Your task to perform on an android device: change notification settings in the gmail app Image 0: 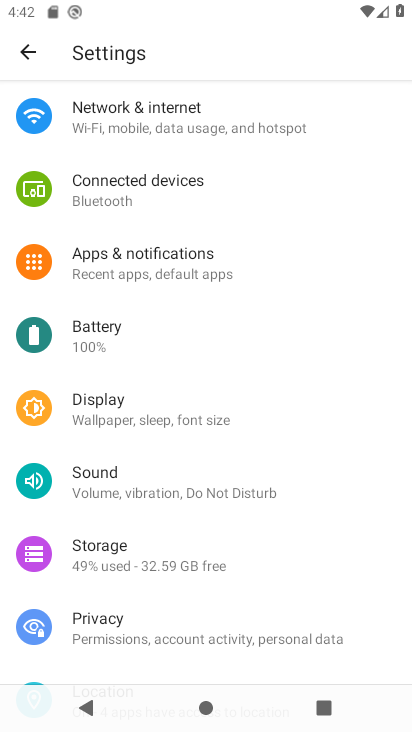
Step 0: press back button
Your task to perform on an android device: change notification settings in the gmail app Image 1: 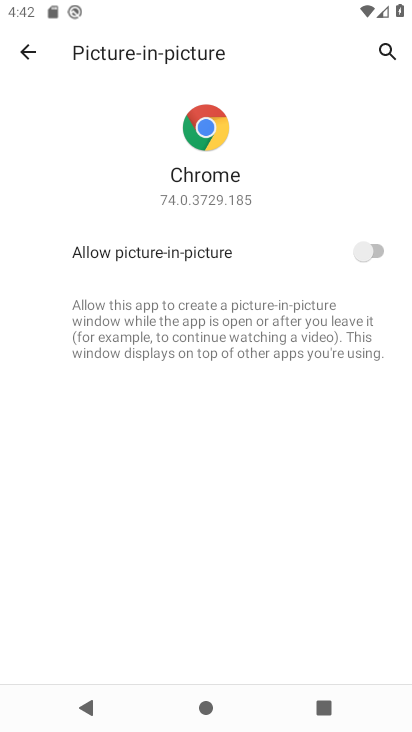
Step 1: press back button
Your task to perform on an android device: change notification settings in the gmail app Image 2: 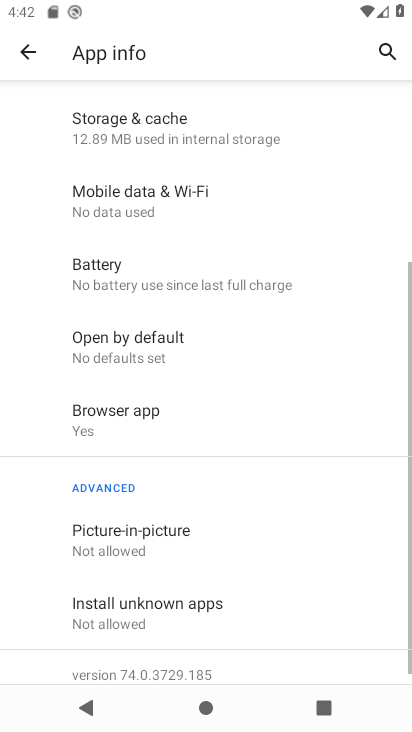
Step 2: press back button
Your task to perform on an android device: change notification settings in the gmail app Image 3: 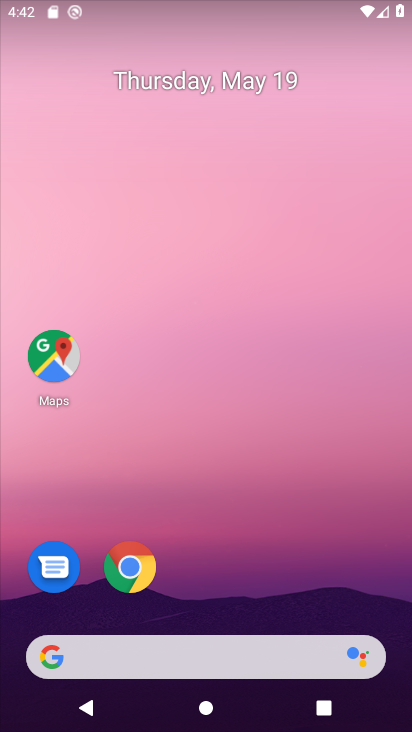
Step 3: drag from (227, 534) to (267, 101)
Your task to perform on an android device: change notification settings in the gmail app Image 4: 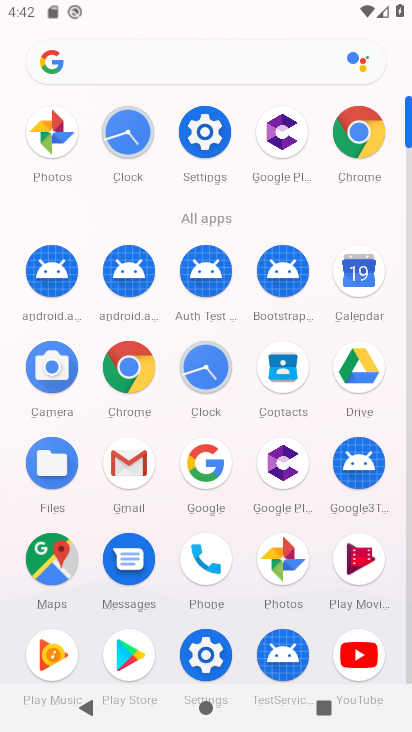
Step 4: click (127, 460)
Your task to perform on an android device: change notification settings in the gmail app Image 5: 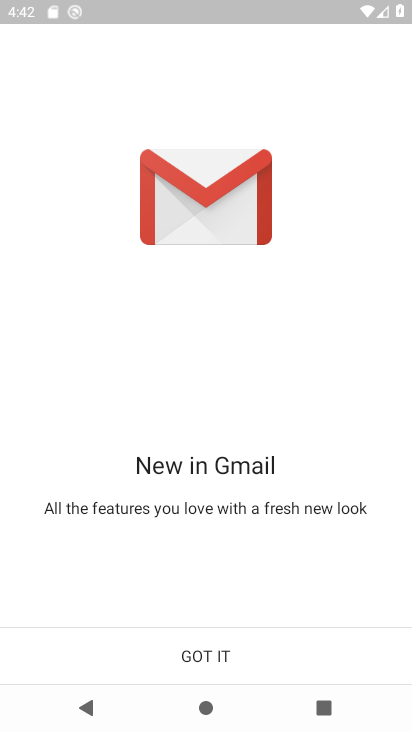
Step 5: click (215, 655)
Your task to perform on an android device: change notification settings in the gmail app Image 6: 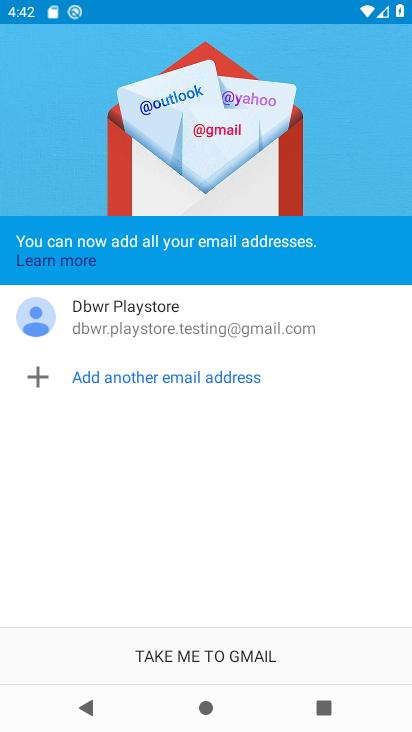
Step 6: click (215, 655)
Your task to perform on an android device: change notification settings in the gmail app Image 7: 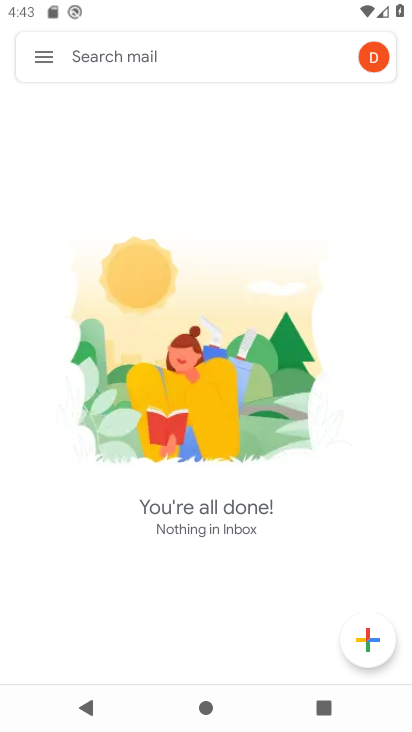
Step 7: click (43, 56)
Your task to perform on an android device: change notification settings in the gmail app Image 8: 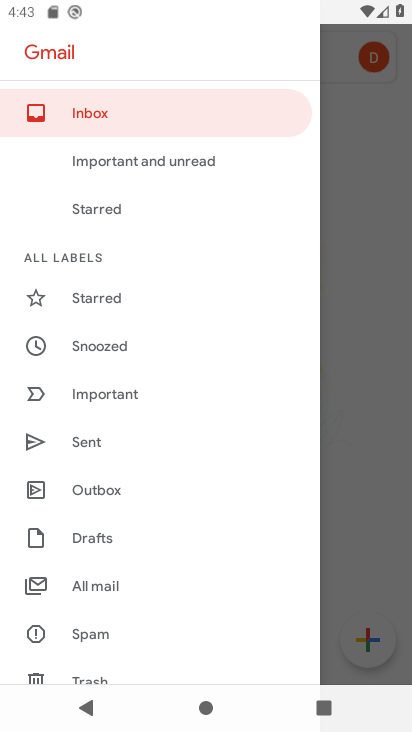
Step 8: drag from (126, 509) to (128, 371)
Your task to perform on an android device: change notification settings in the gmail app Image 9: 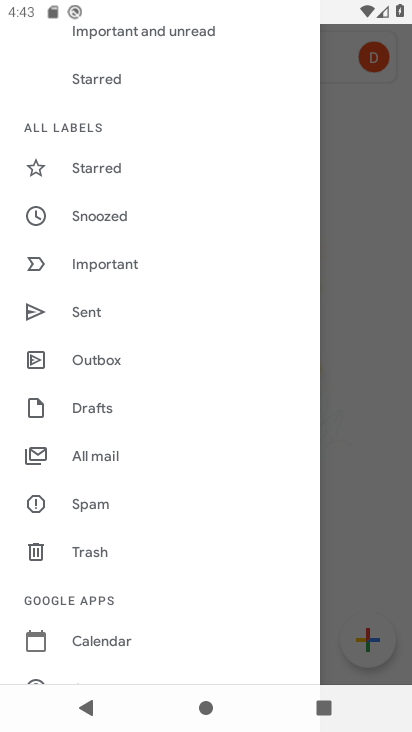
Step 9: drag from (120, 565) to (140, 475)
Your task to perform on an android device: change notification settings in the gmail app Image 10: 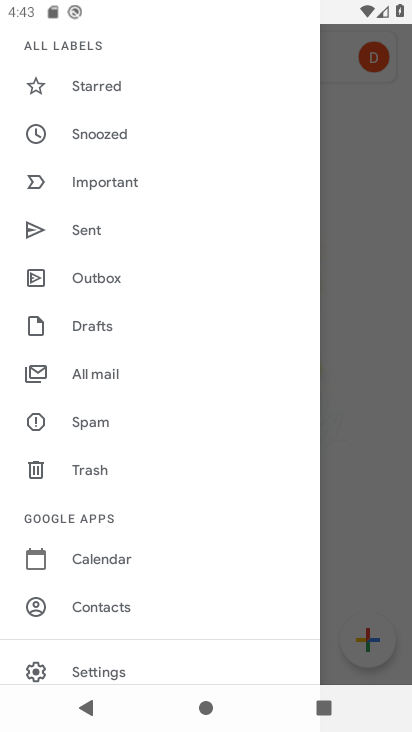
Step 10: drag from (180, 571) to (182, 474)
Your task to perform on an android device: change notification settings in the gmail app Image 11: 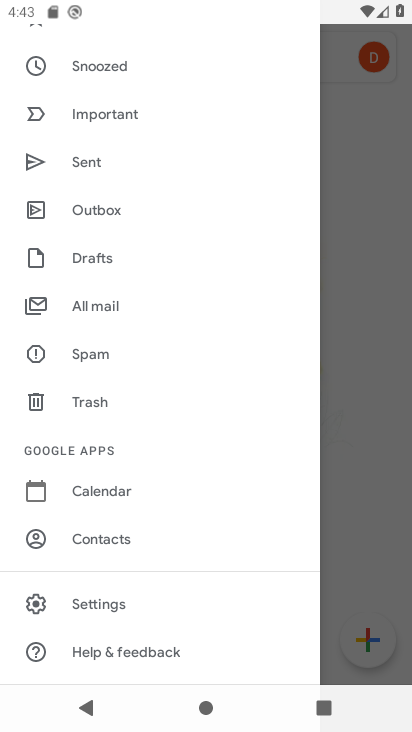
Step 11: click (102, 600)
Your task to perform on an android device: change notification settings in the gmail app Image 12: 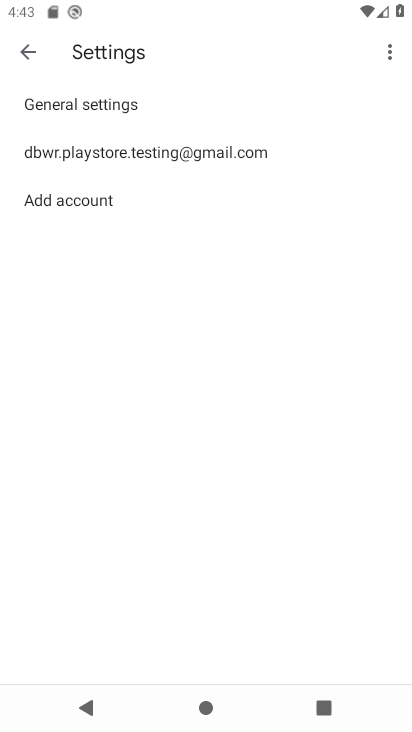
Step 12: click (176, 156)
Your task to perform on an android device: change notification settings in the gmail app Image 13: 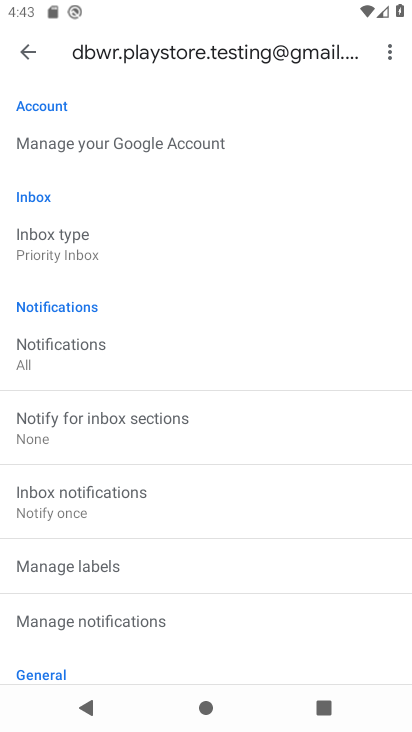
Step 13: click (106, 622)
Your task to perform on an android device: change notification settings in the gmail app Image 14: 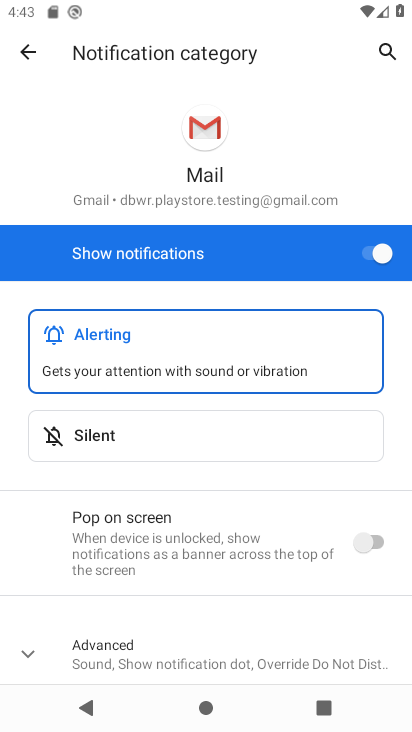
Step 14: click (380, 258)
Your task to perform on an android device: change notification settings in the gmail app Image 15: 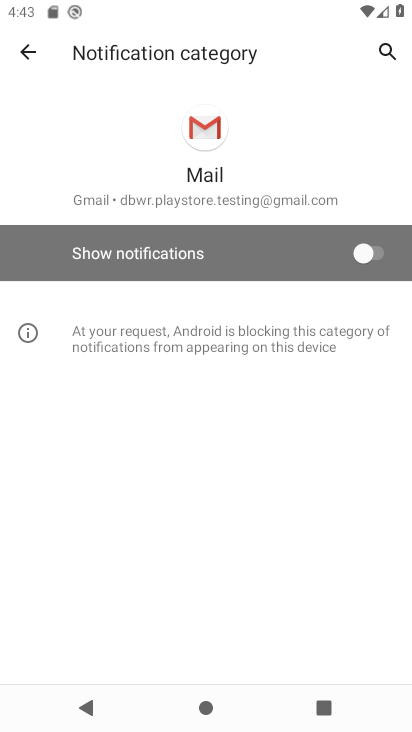
Step 15: task complete